Your task to perform on an android device: Do I have any events this weekend? Image 0: 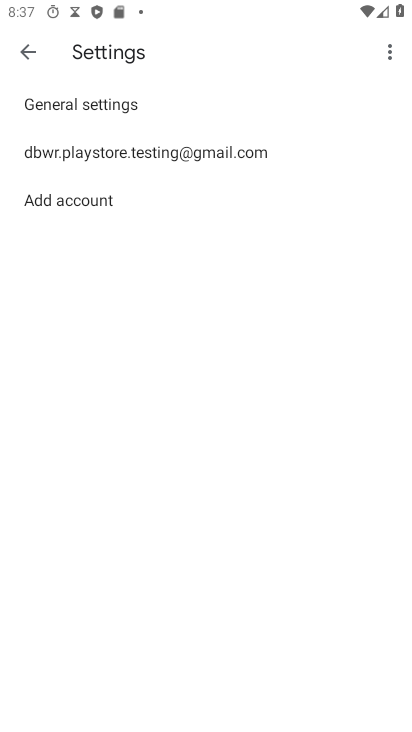
Step 0: press home button
Your task to perform on an android device: Do I have any events this weekend? Image 1: 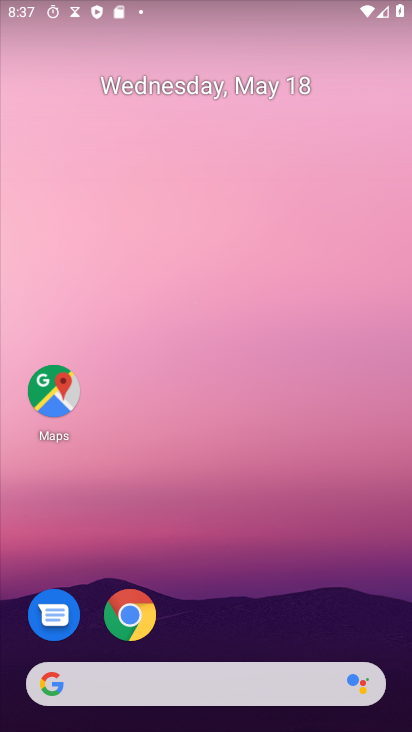
Step 1: click (203, 88)
Your task to perform on an android device: Do I have any events this weekend? Image 2: 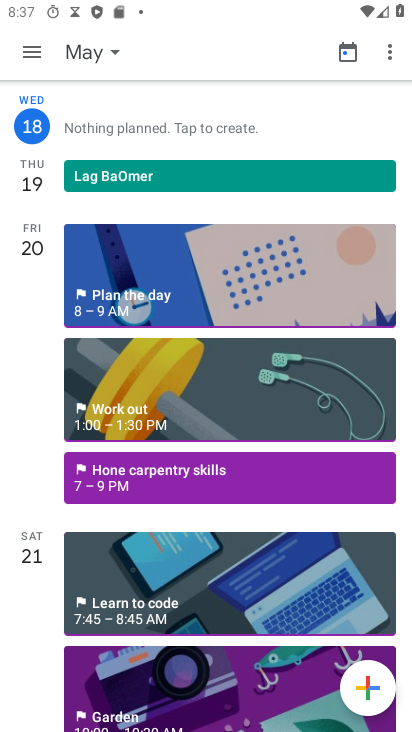
Step 2: click (32, 53)
Your task to perform on an android device: Do I have any events this weekend? Image 3: 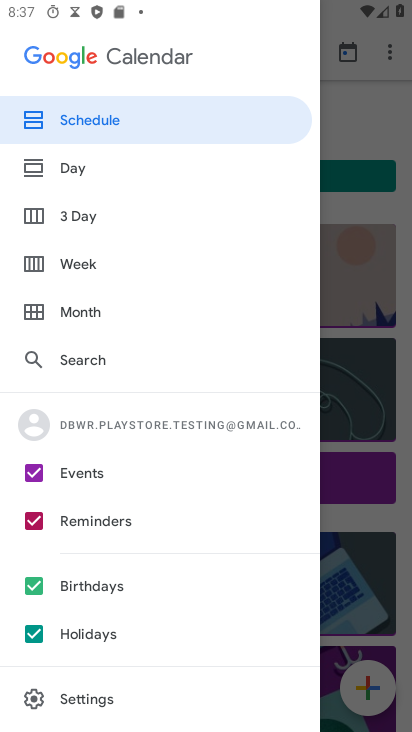
Step 3: click (27, 526)
Your task to perform on an android device: Do I have any events this weekend? Image 4: 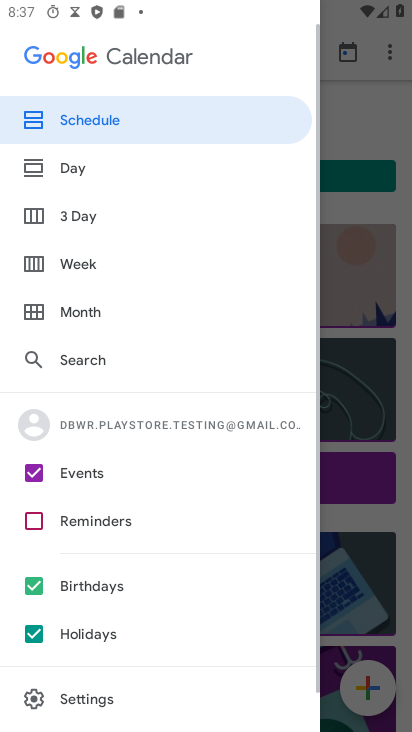
Step 4: click (33, 595)
Your task to perform on an android device: Do I have any events this weekend? Image 5: 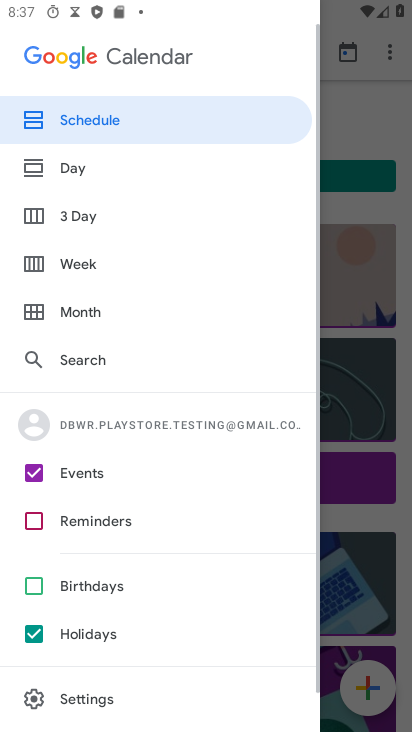
Step 5: click (35, 635)
Your task to perform on an android device: Do I have any events this weekend? Image 6: 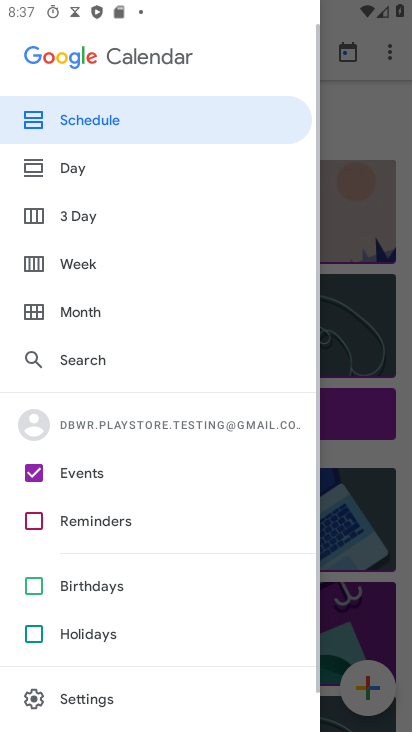
Step 6: click (37, 216)
Your task to perform on an android device: Do I have any events this weekend? Image 7: 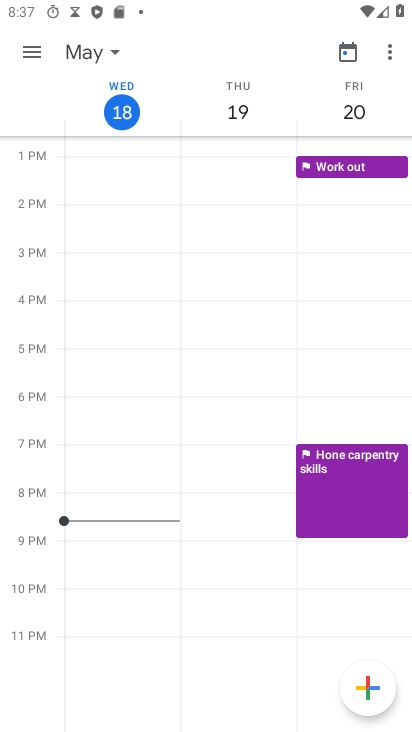
Step 7: task complete